Your task to perform on an android device: set the timer Image 0: 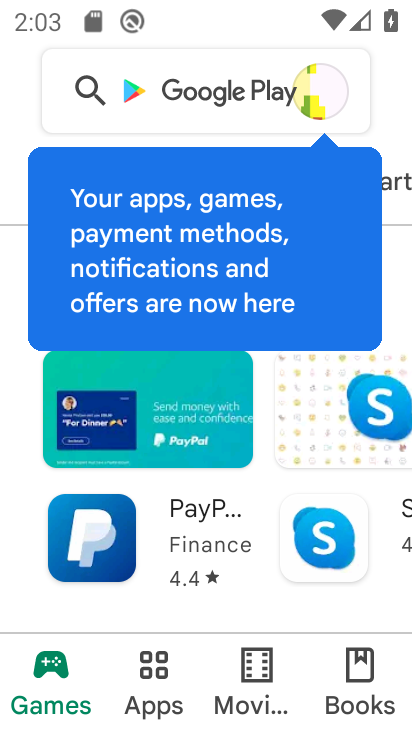
Step 0: press home button
Your task to perform on an android device: set the timer Image 1: 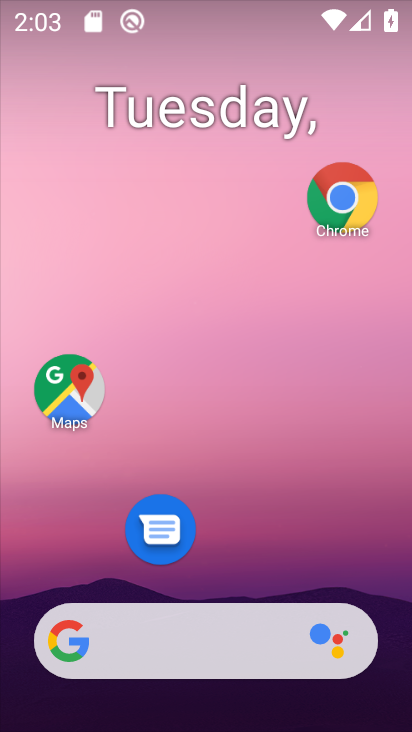
Step 1: drag from (257, 404) to (301, 24)
Your task to perform on an android device: set the timer Image 2: 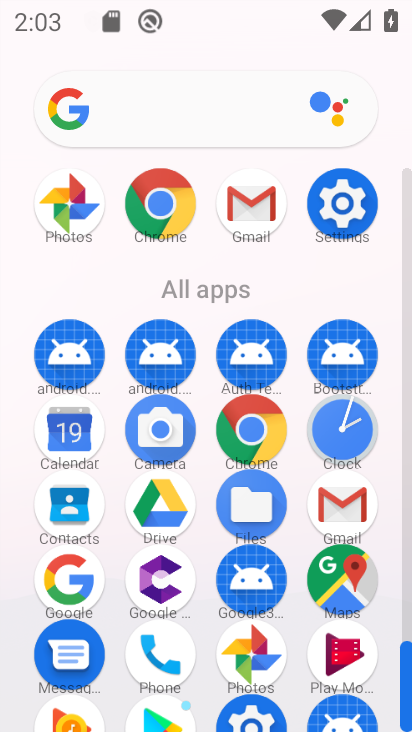
Step 2: click (339, 434)
Your task to perform on an android device: set the timer Image 3: 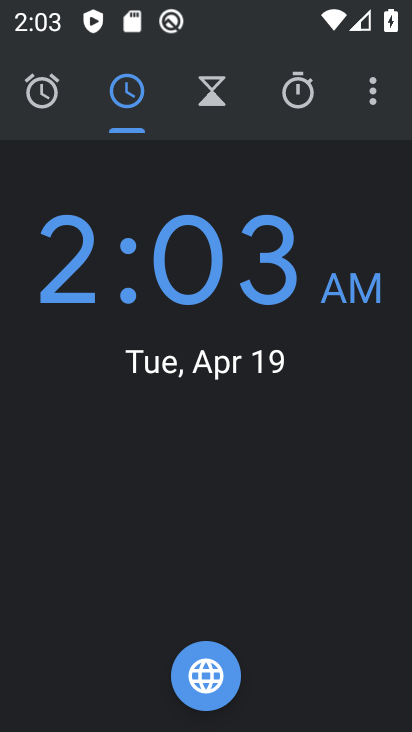
Step 3: click (211, 81)
Your task to perform on an android device: set the timer Image 4: 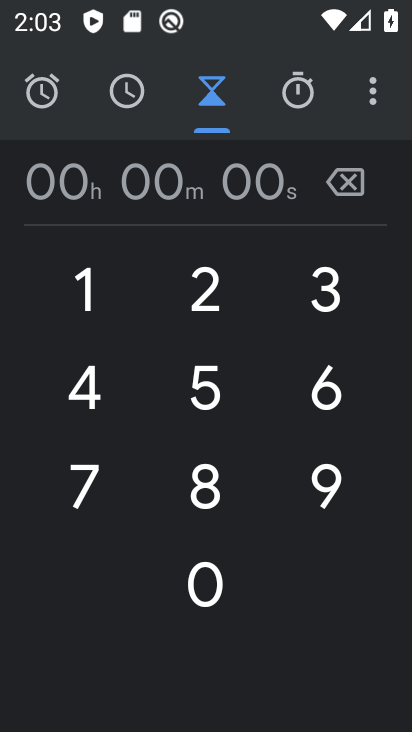
Step 4: click (200, 295)
Your task to perform on an android device: set the timer Image 5: 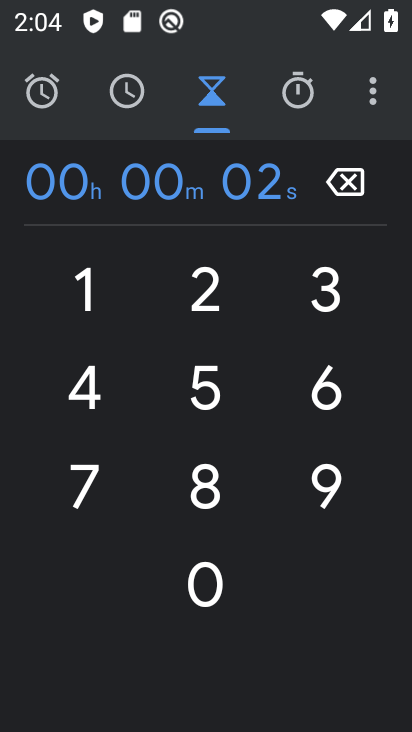
Step 5: click (320, 277)
Your task to perform on an android device: set the timer Image 6: 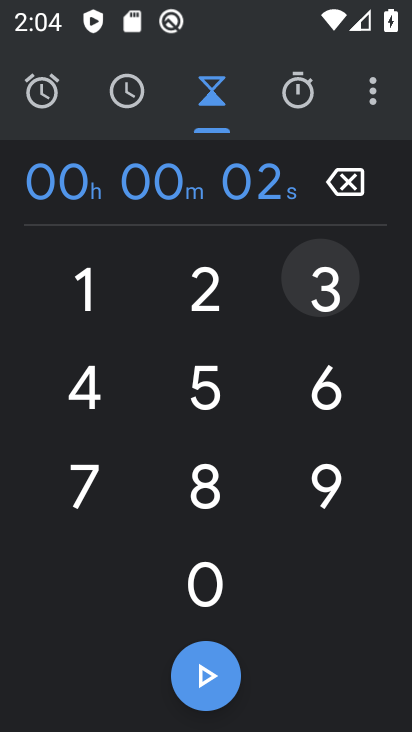
Step 6: click (313, 421)
Your task to perform on an android device: set the timer Image 7: 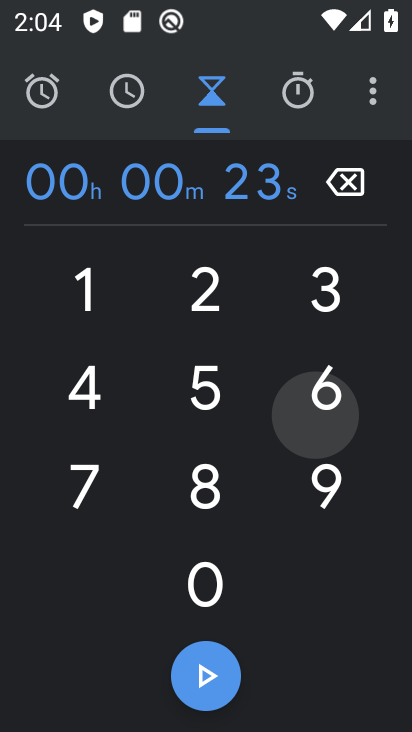
Step 7: click (197, 374)
Your task to perform on an android device: set the timer Image 8: 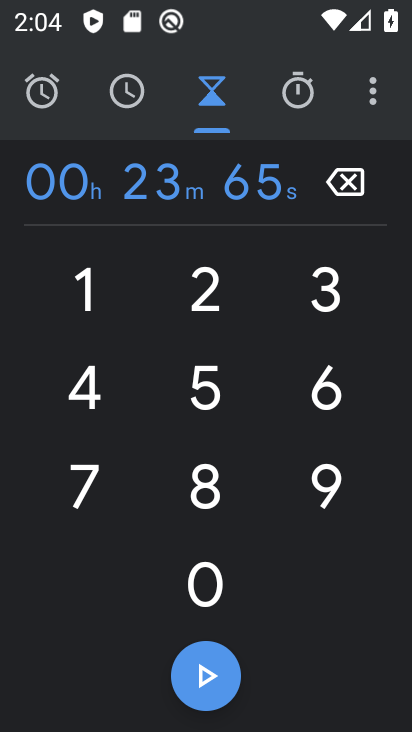
Step 8: task complete